Your task to perform on an android device: toggle translation in the chrome app Image 0: 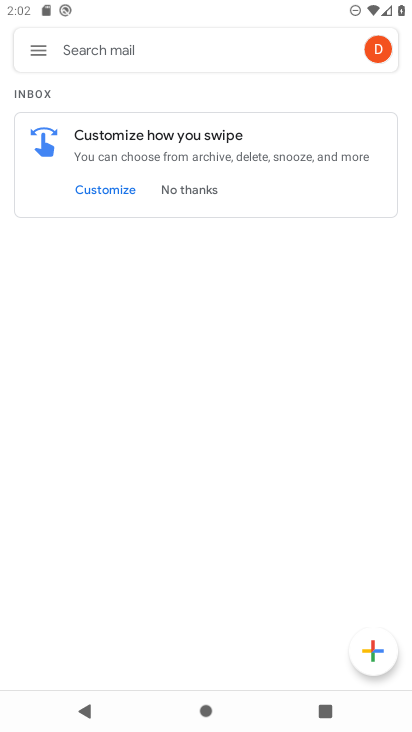
Step 0: press home button
Your task to perform on an android device: toggle translation in the chrome app Image 1: 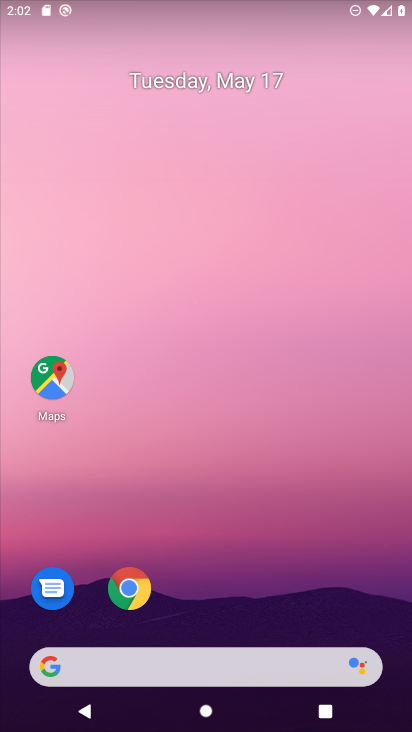
Step 1: click (138, 604)
Your task to perform on an android device: toggle translation in the chrome app Image 2: 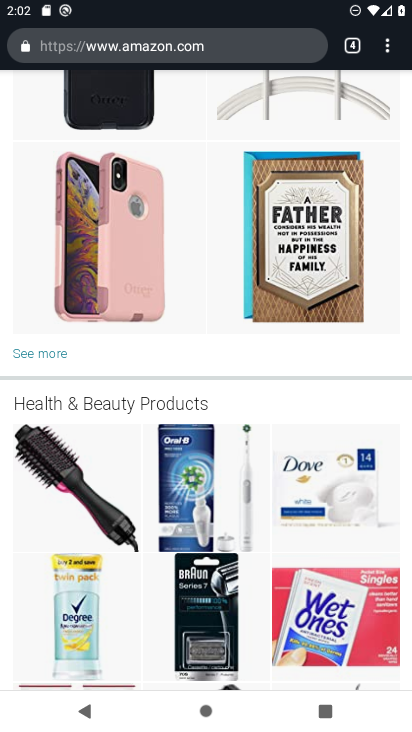
Step 2: click (386, 45)
Your task to perform on an android device: toggle translation in the chrome app Image 3: 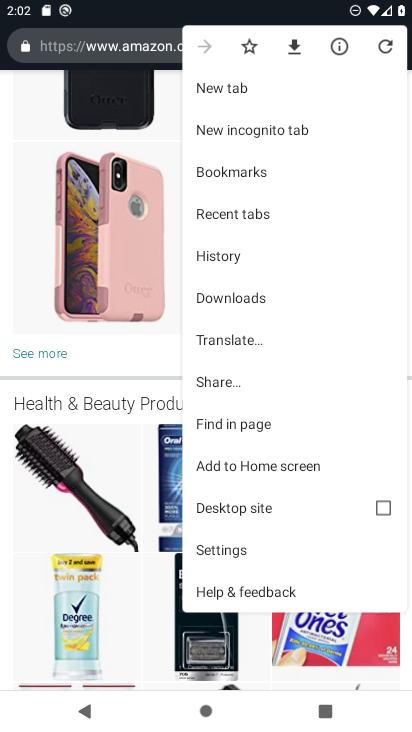
Step 3: click (240, 547)
Your task to perform on an android device: toggle translation in the chrome app Image 4: 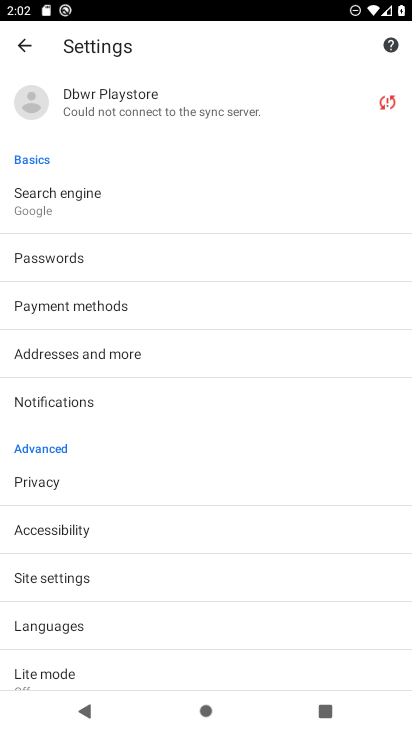
Step 4: click (59, 626)
Your task to perform on an android device: toggle translation in the chrome app Image 5: 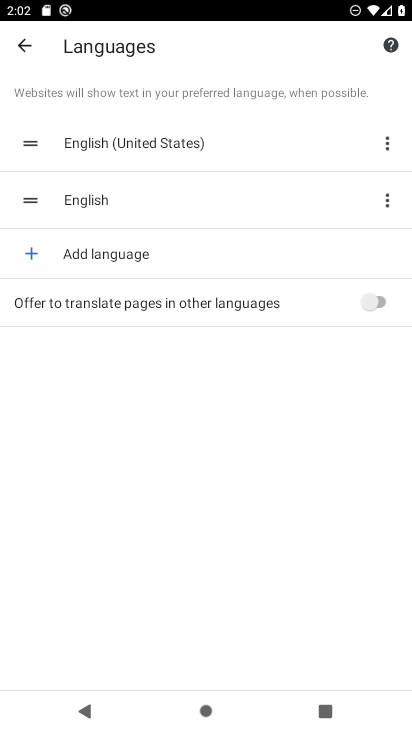
Step 5: click (381, 307)
Your task to perform on an android device: toggle translation in the chrome app Image 6: 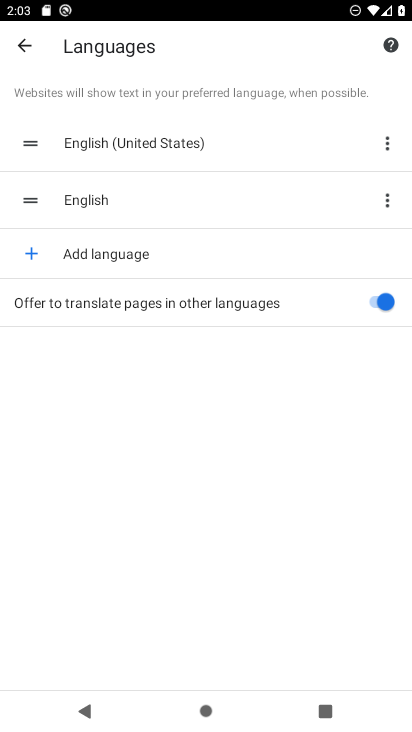
Step 6: task complete